Your task to perform on an android device: Set the phone to "Do not disturb". Image 0: 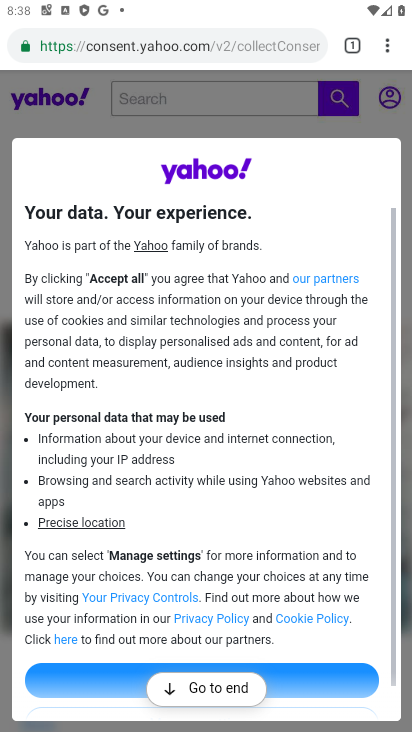
Step 0: press home button
Your task to perform on an android device: Set the phone to "Do not disturb". Image 1: 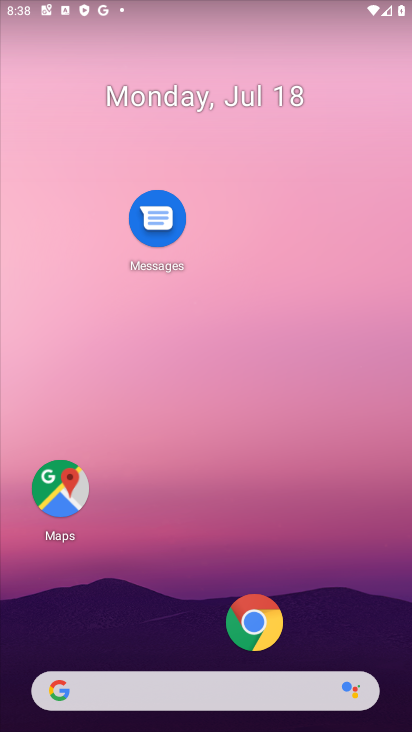
Step 1: drag from (185, 5) to (178, 529)
Your task to perform on an android device: Set the phone to "Do not disturb". Image 2: 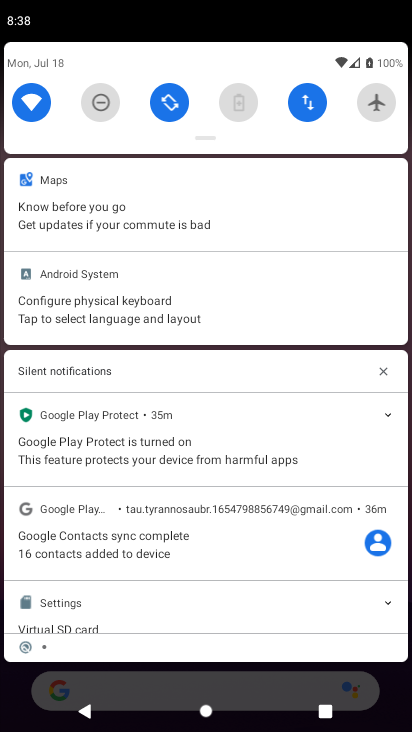
Step 2: drag from (157, 120) to (196, 530)
Your task to perform on an android device: Set the phone to "Do not disturb". Image 3: 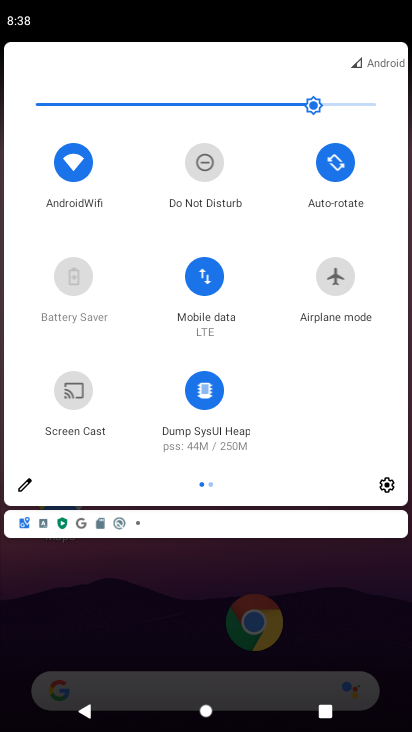
Step 3: click (202, 167)
Your task to perform on an android device: Set the phone to "Do not disturb". Image 4: 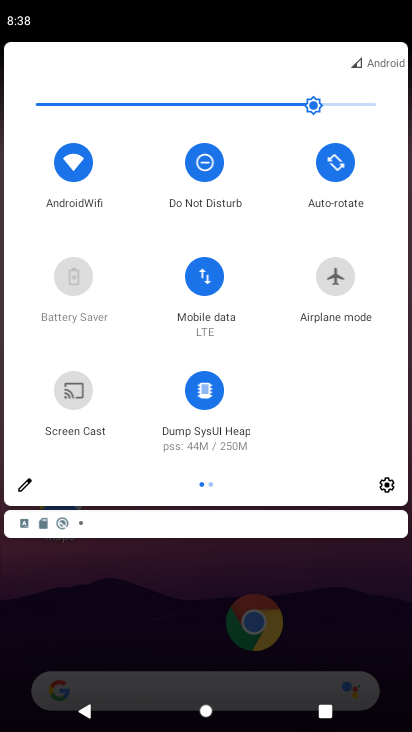
Step 4: task complete